Your task to perform on an android device: What's the weather going to be tomorrow? Image 0: 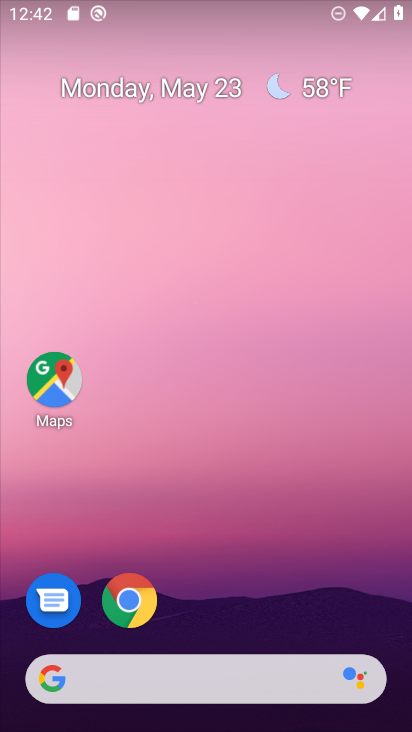
Step 0: click (317, 98)
Your task to perform on an android device: What's the weather going to be tomorrow? Image 1: 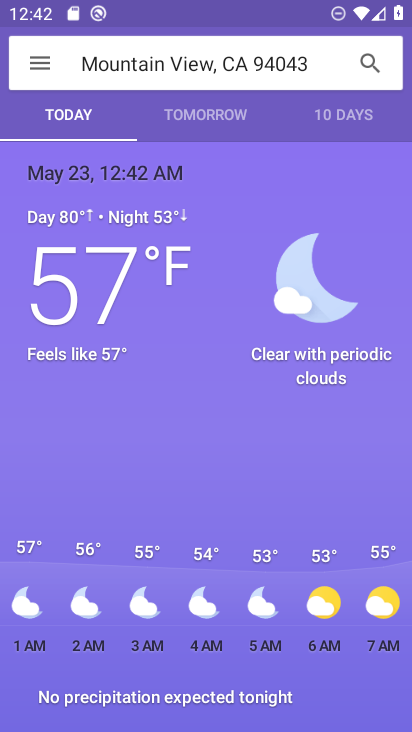
Step 1: click (219, 132)
Your task to perform on an android device: What's the weather going to be tomorrow? Image 2: 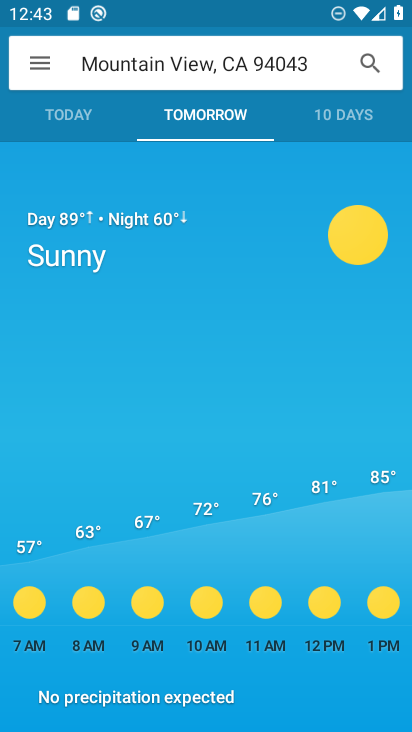
Step 2: task complete